Your task to perform on an android device: Go to notification settings Image 0: 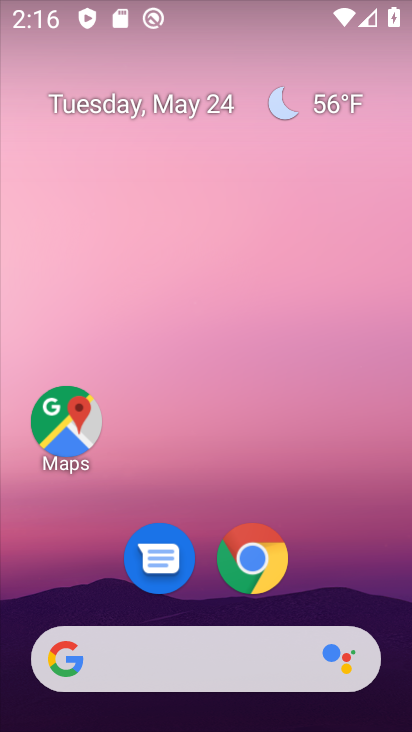
Step 0: drag from (81, 597) to (267, 9)
Your task to perform on an android device: Go to notification settings Image 1: 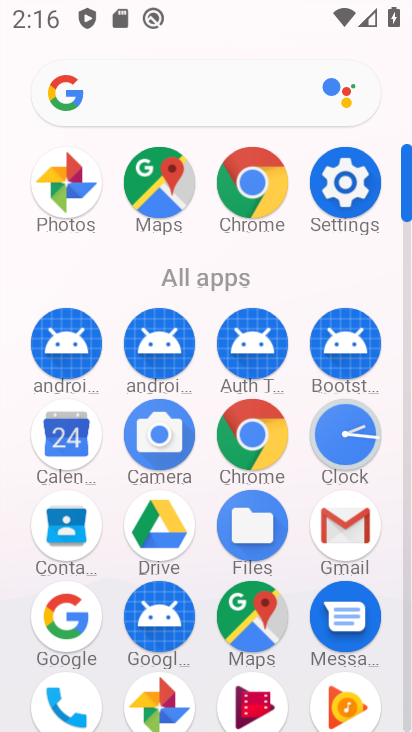
Step 1: drag from (148, 652) to (230, 268)
Your task to perform on an android device: Go to notification settings Image 2: 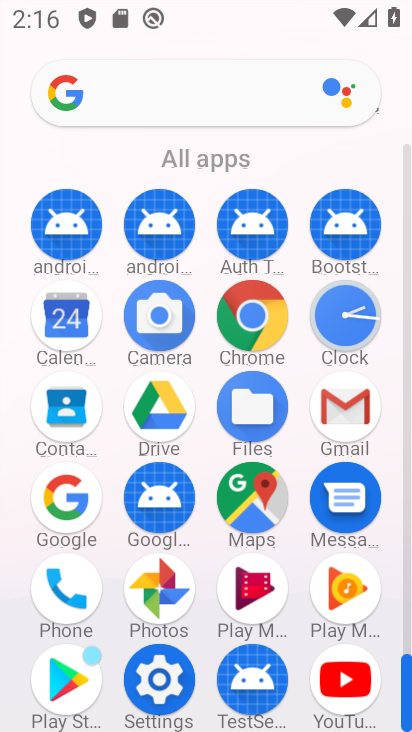
Step 2: click (144, 692)
Your task to perform on an android device: Go to notification settings Image 3: 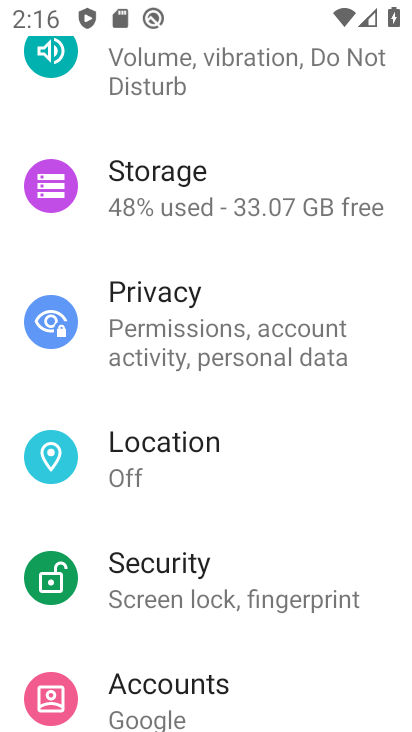
Step 3: drag from (131, 674) to (201, 641)
Your task to perform on an android device: Go to notification settings Image 4: 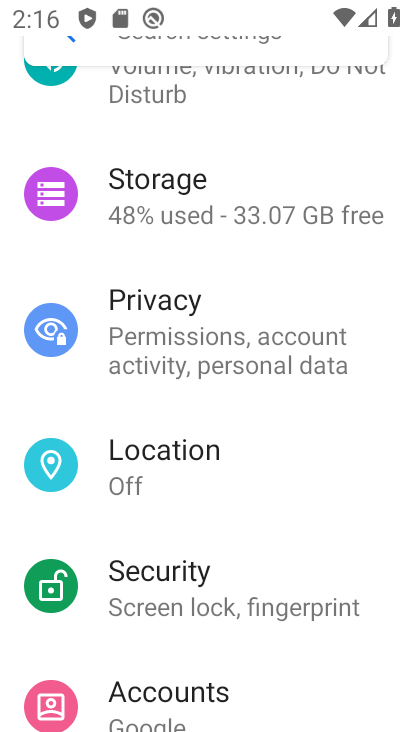
Step 4: drag from (257, 157) to (249, 582)
Your task to perform on an android device: Go to notification settings Image 5: 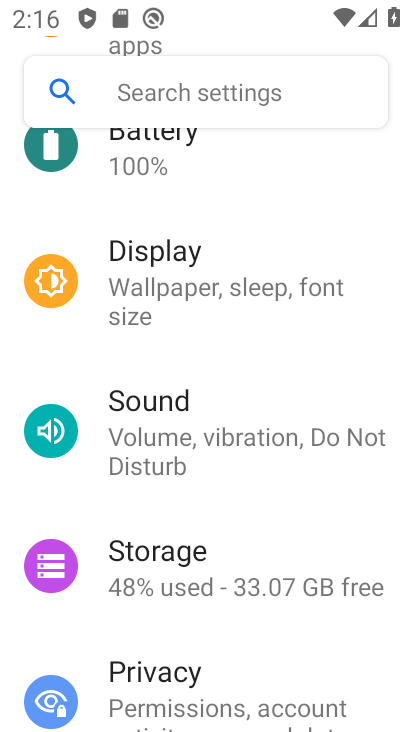
Step 5: drag from (211, 237) to (187, 632)
Your task to perform on an android device: Go to notification settings Image 6: 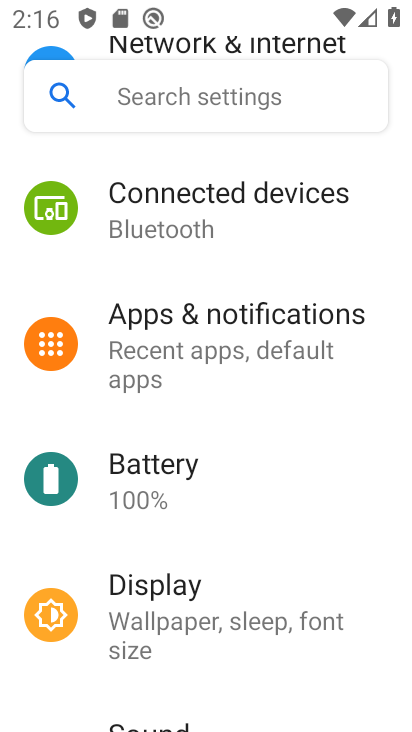
Step 6: click (265, 330)
Your task to perform on an android device: Go to notification settings Image 7: 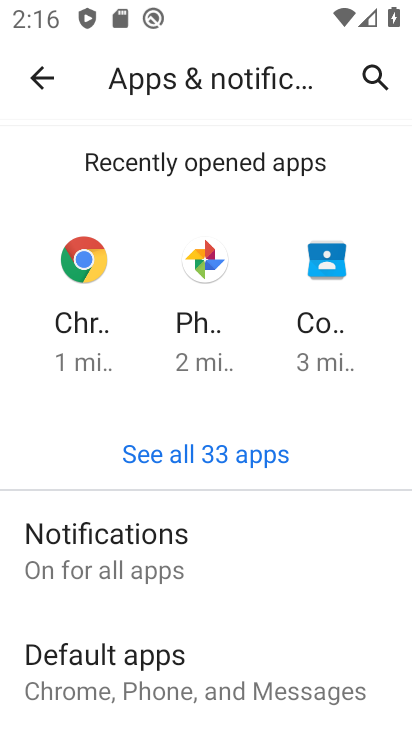
Step 7: click (145, 538)
Your task to perform on an android device: Go to notification settings Image 8: 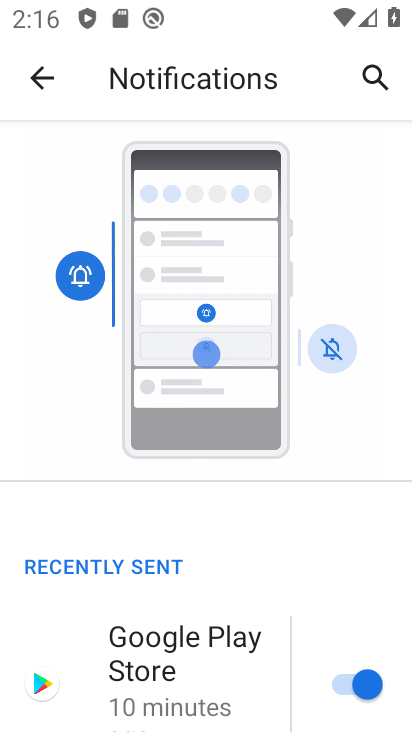
Step 8: task complete